Your task to perform on an android device: Open Yahoo.com Image 0: 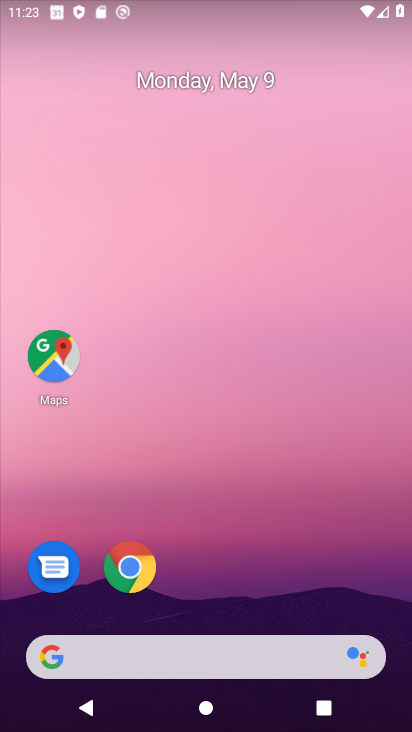
Step 0: drag from (368, 616) to (318, 101)
Your task to perform on an android device: Open Yahoo.com Image 1: 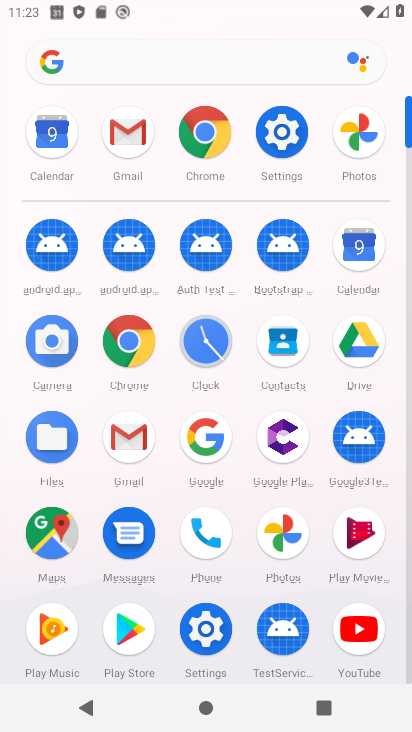
Step 1: click (192, 136)
Your task to perform on an android device: Open Yahoo.com Image 2: 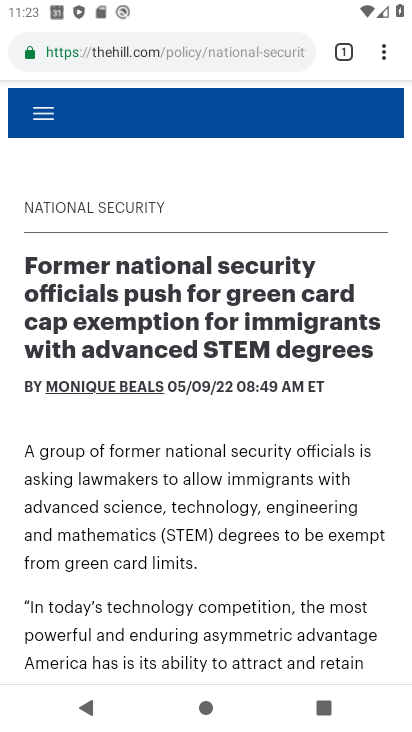
Step 2: press back button
Your task to perform on an android device: Open Yahoo.com Image 3: 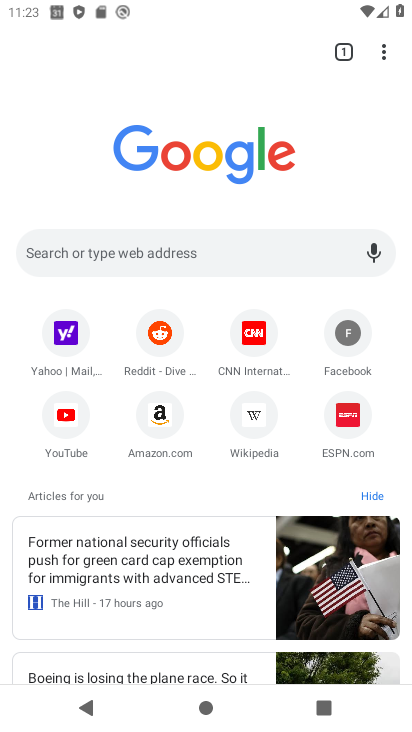
Step 3: click (58, 337)
Your task to perform on an android device: Open Yahoo.com Image 4: 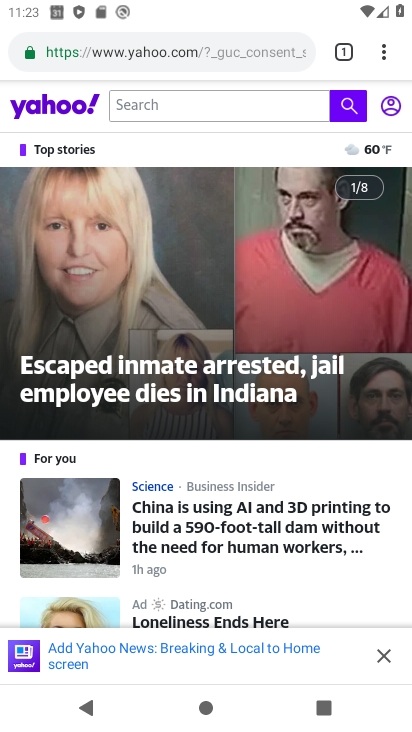
Step 4: task complete